Your task to perform on an android device: empty trash in google photos Image 0: 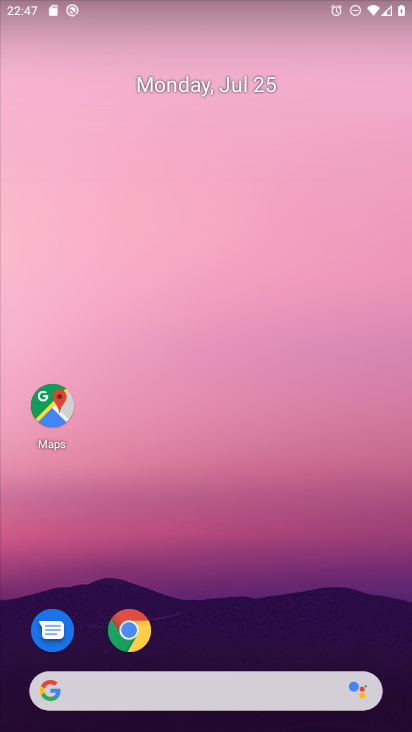
Step 0: drag from (307, 597) to (278, 51)
Your task to perform on an android device: empty trash in google photos Image 1: 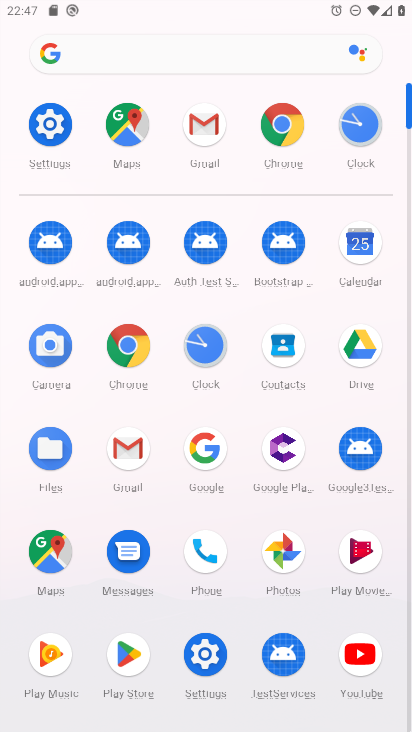
Step 1: click (271, 552)
Your task to perform on an android device: empty trash in google photos Image 2: 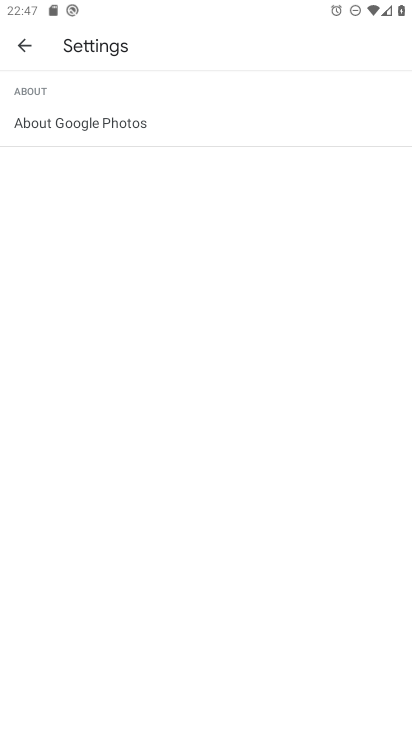
Step 2: click (44, 54)
Your task to perform on an android device: empty trash in google photos Image 3: 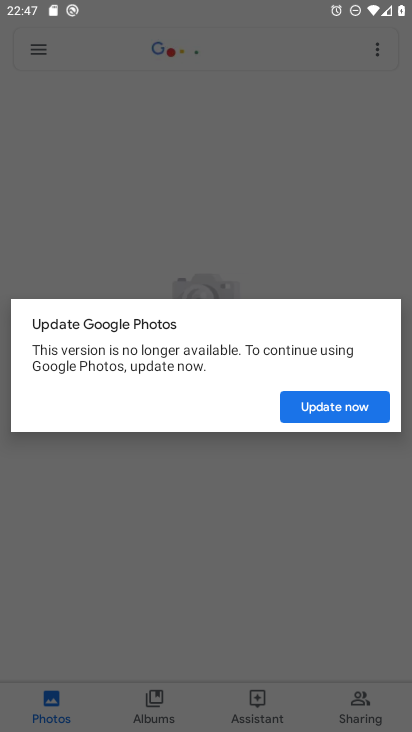
Step 3: click (369, 414)
Your task to perform on an android device: empty trash in google photos Image 4: 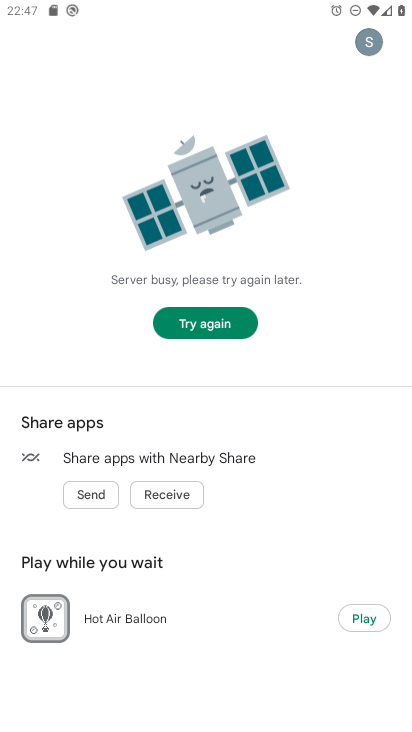
Step 4: task complete